Your task to perform on an android device: When is my next appointment? Image 0: 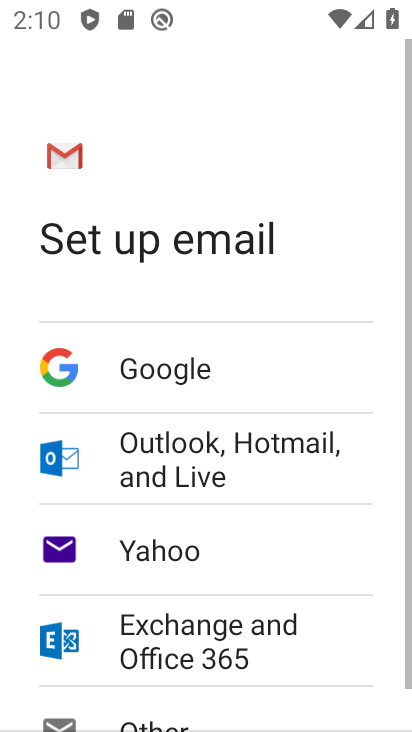
Step 0: press home button
Your task to perform on an android device: When is my next appointment? Image 1: 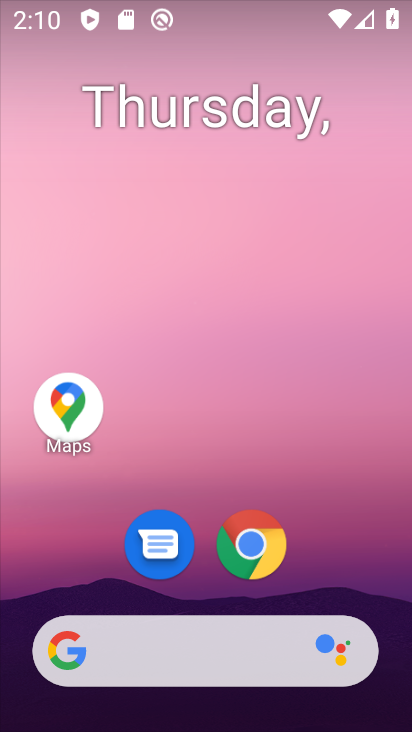
Step 1: drag from (251, 421) to (154, 155)
Your task to perform on an android device: When is my next appointment? Image 2: 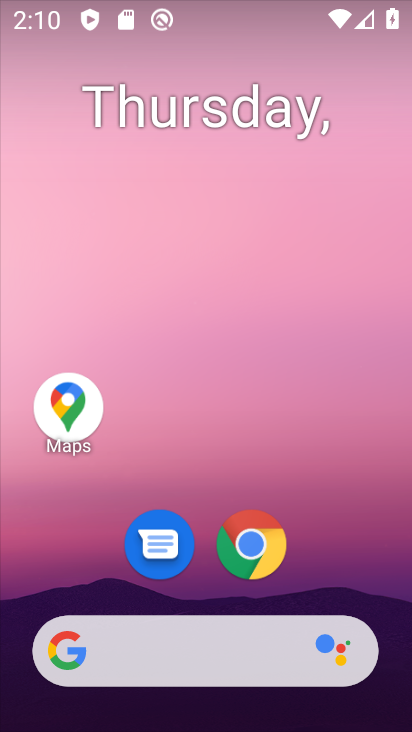
Step 2: drag from (306, 586) to (311, 94)
Your task to perform on an android device: When is my next appointment? Image 3: 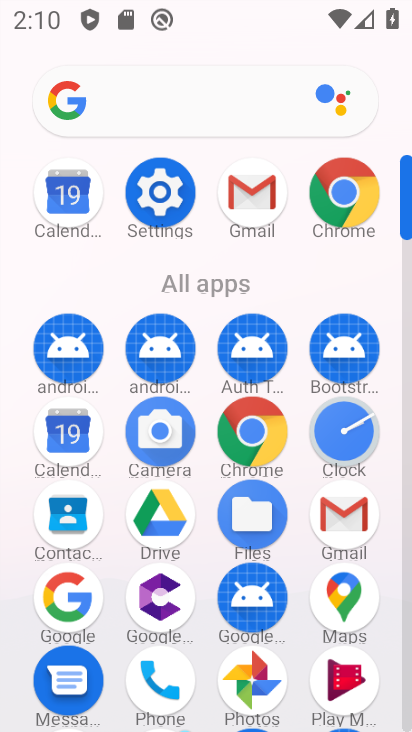
Step 3: click (72, 435)
Your task to perform on an android device: When is my next appointment? Image 4: 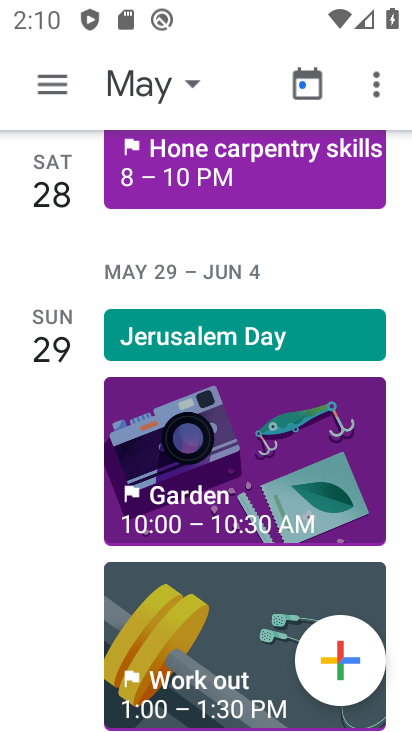
Step 4: click (133, 90)
Your task to perform on an android device: When is my next appointment? Image 5: 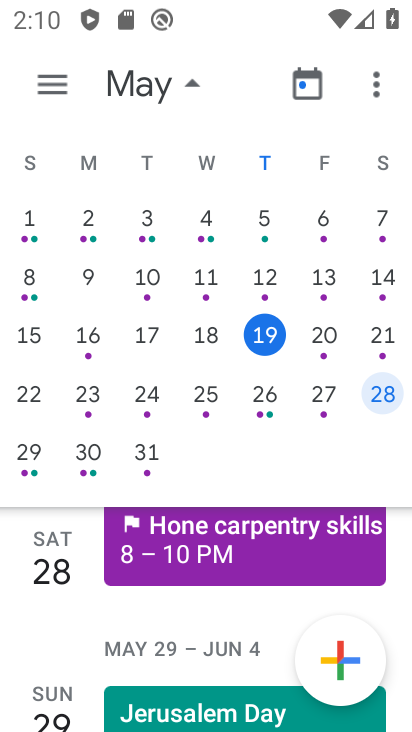
Step 5: click (271, 344)
Your task to perform on an android device: When is my next appointment? Image 6: 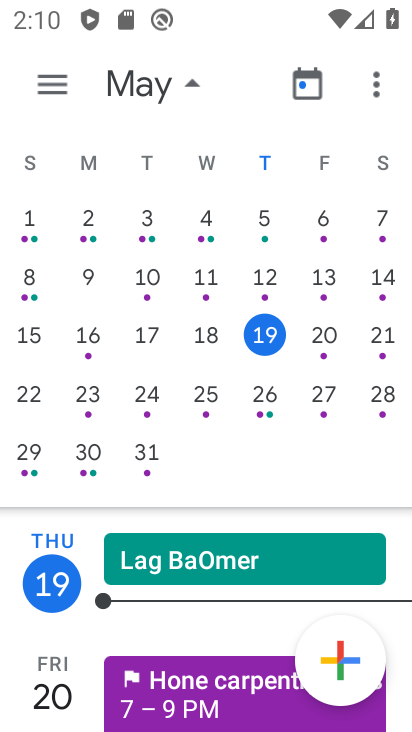
Step 6: click (140, 91)
Your task to perform on an android device: When is my next appointment? Image 7: 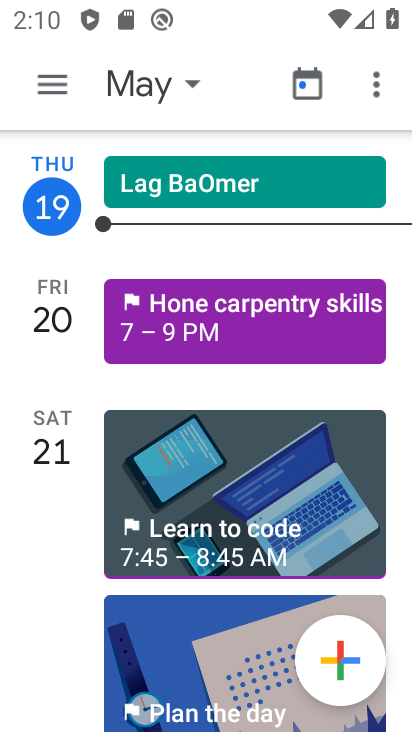
Step 7: click (161, 322)
Your task to perform on an android device: When is my next appointment? Image 8: 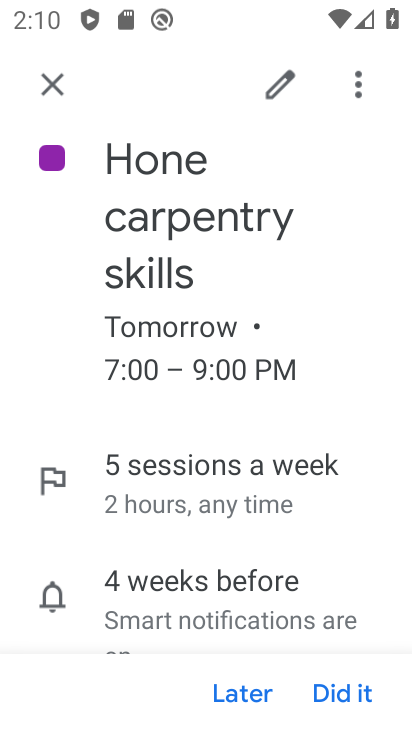
Step 8: task complete